Your task to perform on an android device: Go to calendar. Show me events next week Image 0: 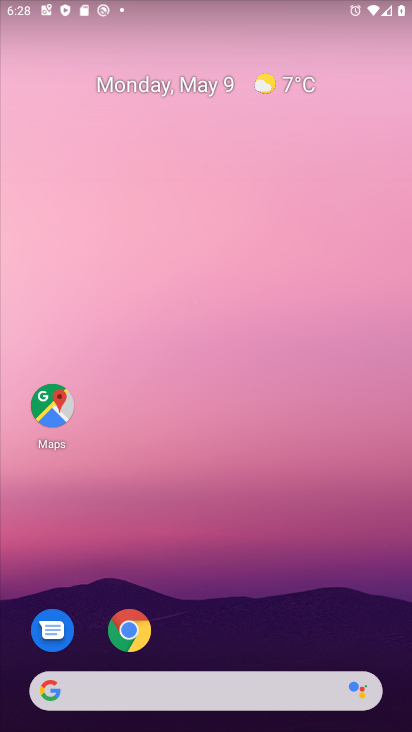
Step 0: drag from (245, 623) to (225, 143)
Your task to perform on an android device: Go to calendar. Show me events next week Image 1: 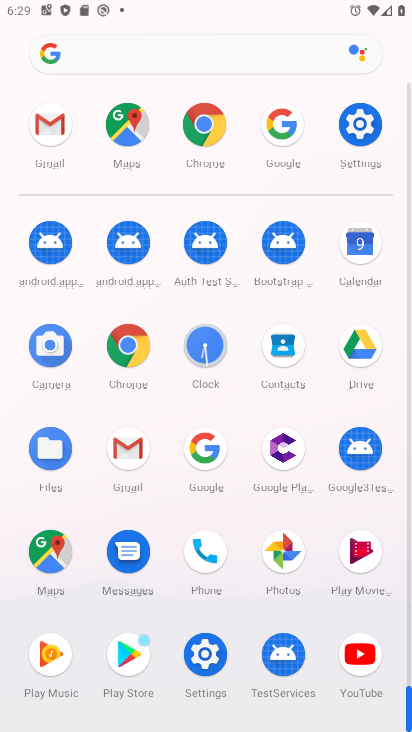
Step 1: click (356, 281)
Your task to perform on an android device: Go to calendar. Show me events next week Image 2: 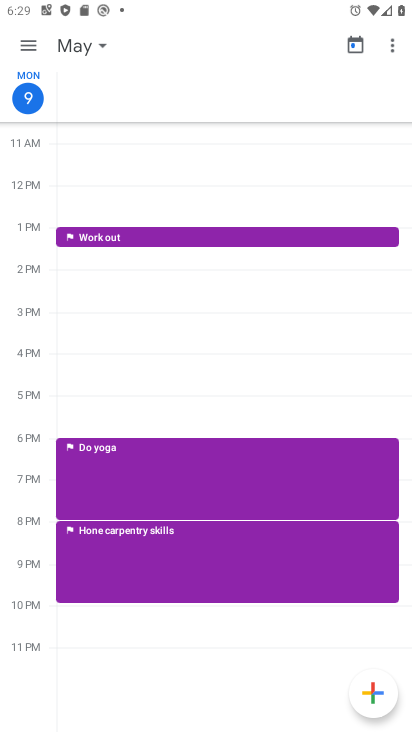
Step 2: click (32, 48)
Your task to perform on an android device: Go to calendar. Show me events next week Image 3: 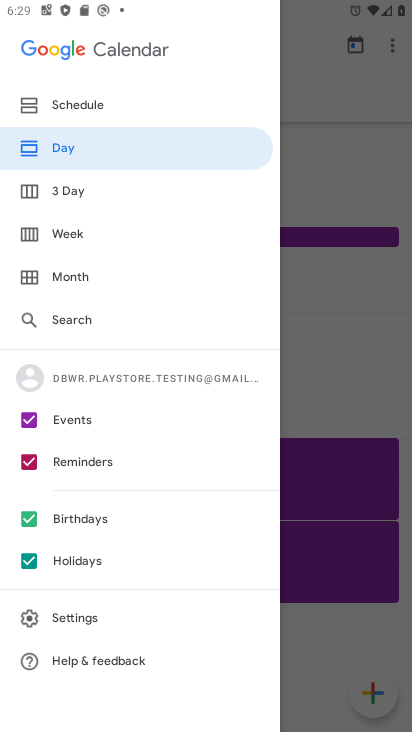
Step 3: click (72, 248)
Your task to perform on an android device: Go to calendar. Show me events next week Image 4: 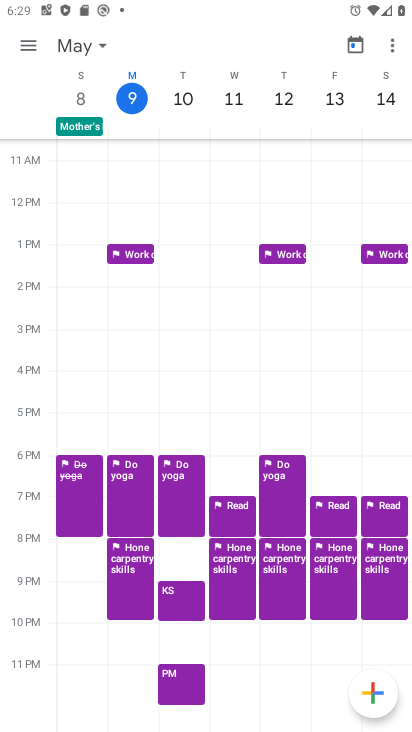
Step 4: click (80, 45)
Your task to perform on an android device: Go to calendar. Show me events next week Image 5: 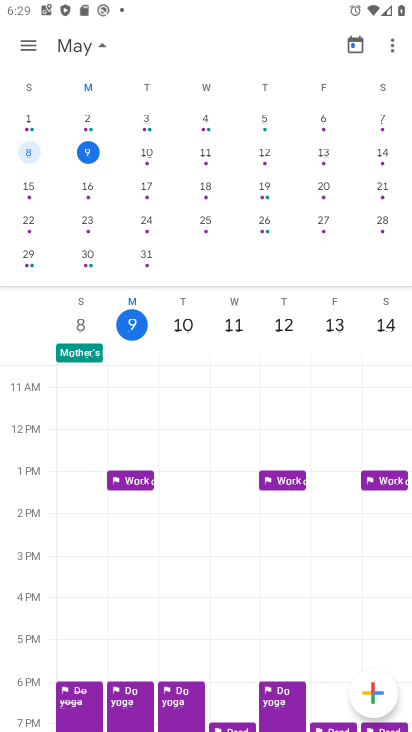
Step 5: click (30, 197)
Your task to perform on an android device: Go to calendar. Show me events next week Image 6: 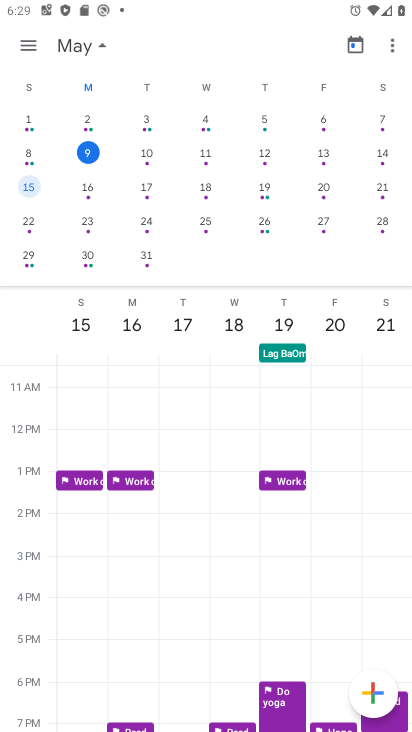
Step 6: task complete